Your task to perform on an android device: Open display settings Image 0: 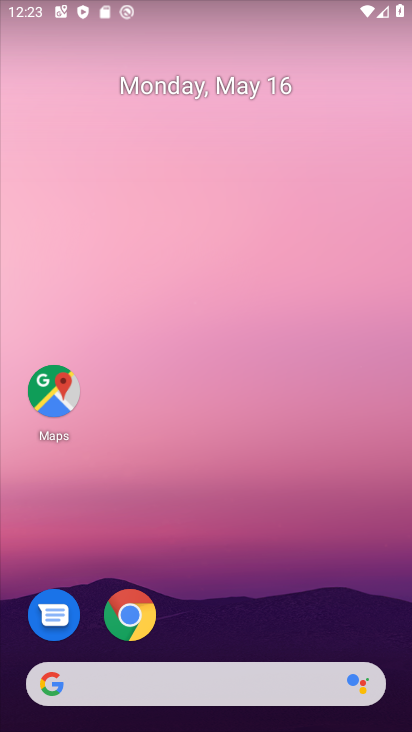
Step 0: drag from (294, 627) to (401, 4)
Your task to perform on an android device: Open display settings Image 1: 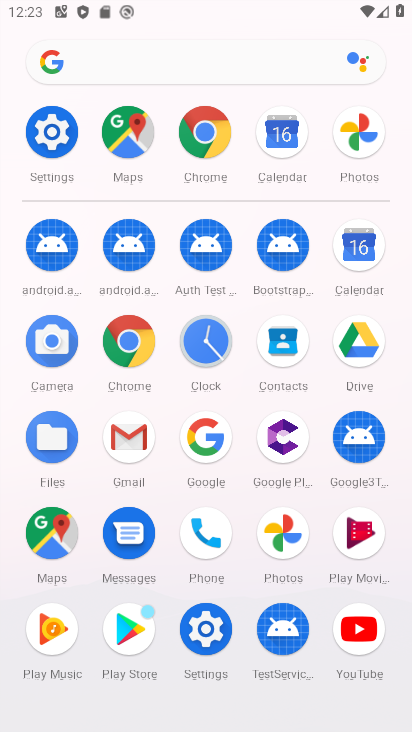
Step 1: click (47, 108)
Your task to perform on an android device: Open display settings Image 2: 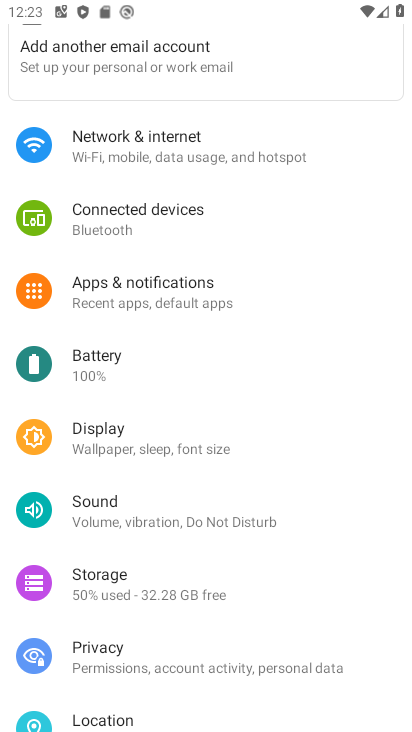
Step 2: click (164, 433)
Your task to perform on an android device: Open display settings Image 3: 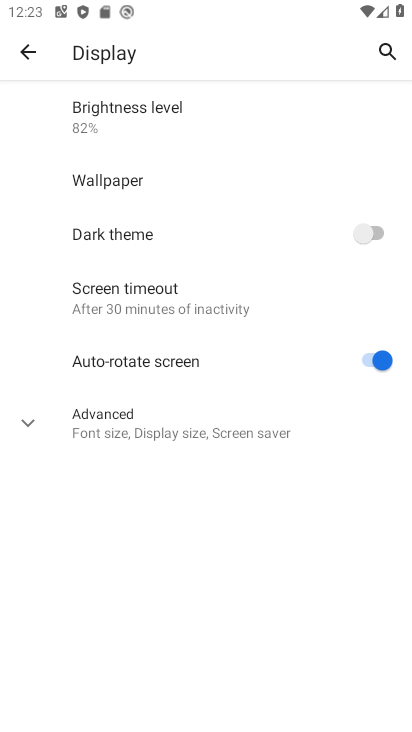
Step 3: task complete